Your task to perform on an android device: star an email in the gmail app Image 0: 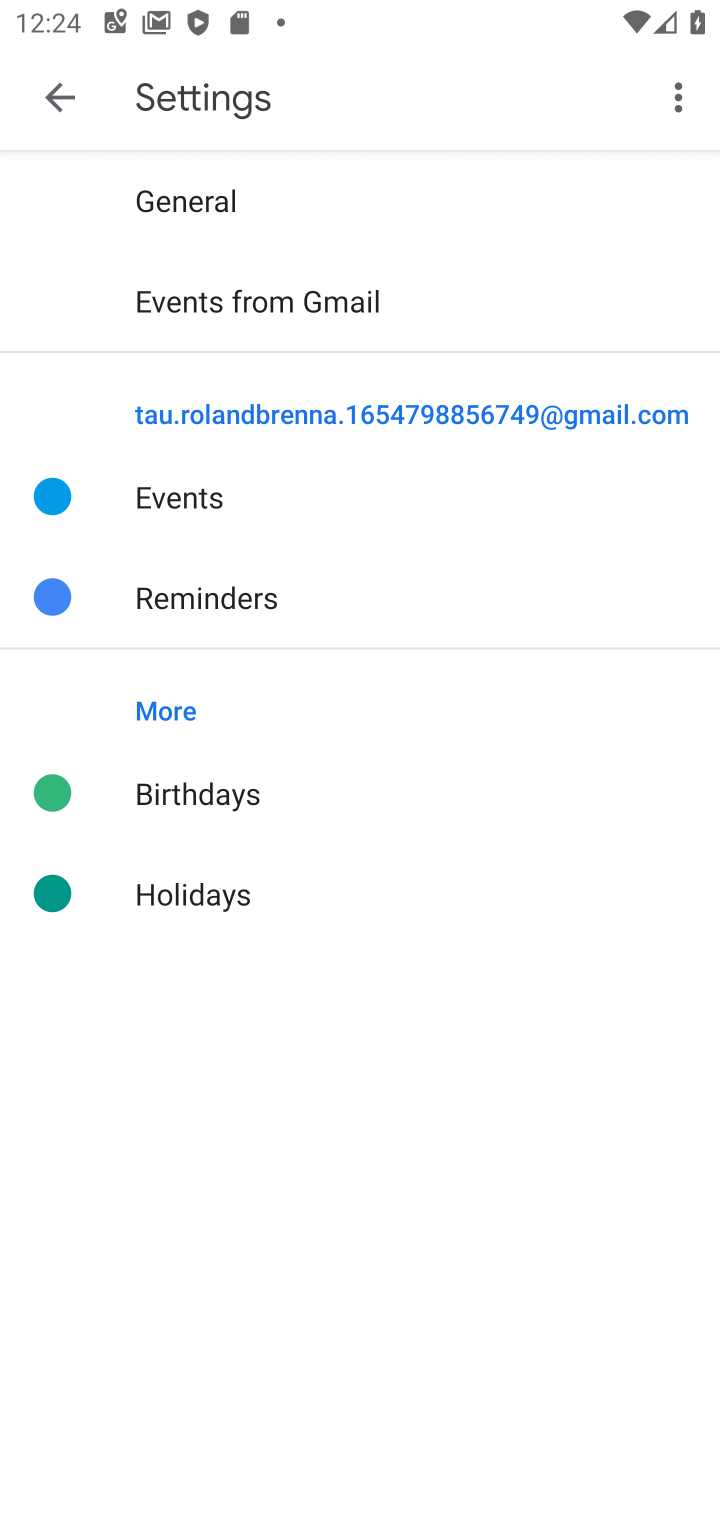
Step 0: press home button
Your task to perform on an android device: star an email in the gmail app Image 1: 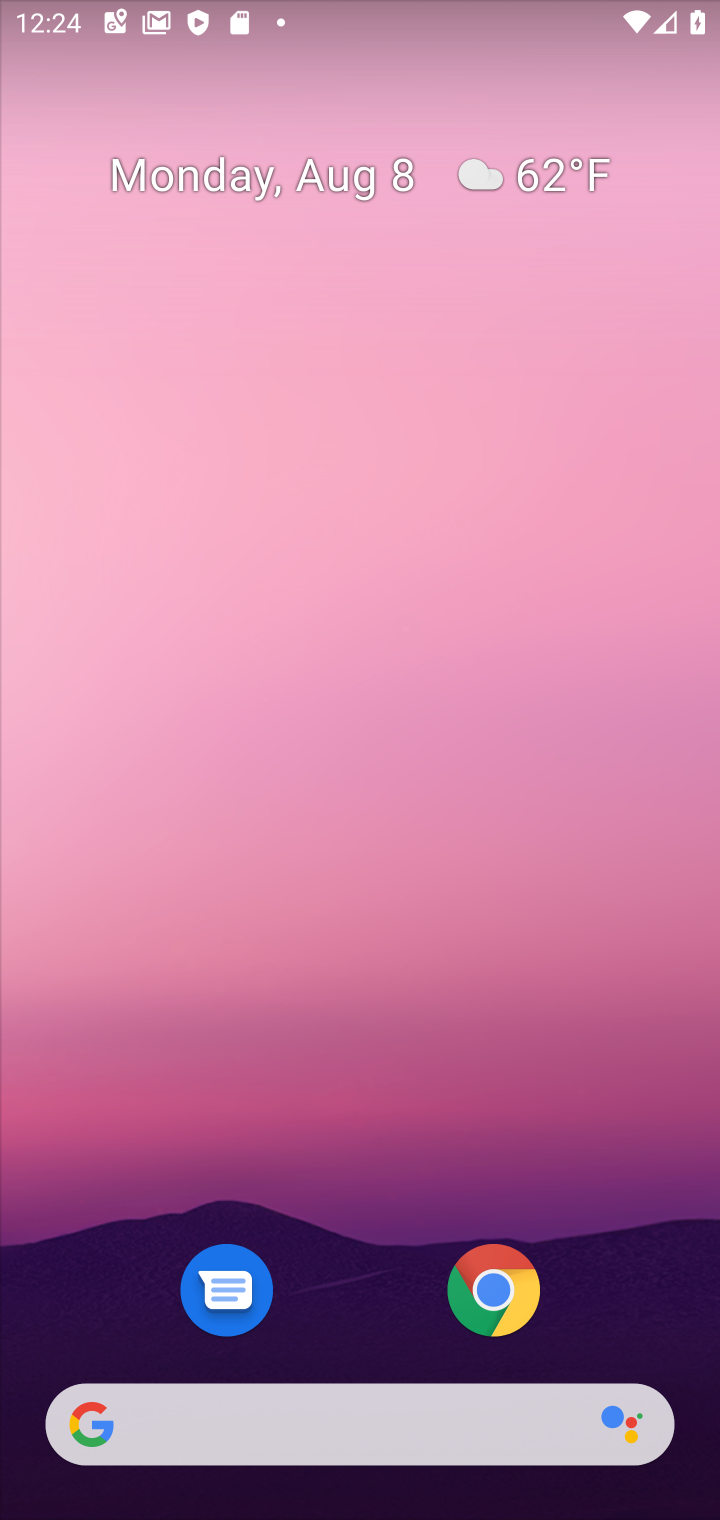
Step 1: drag from (317, 97) to (348, 10)
Your task to perform on an android device: star an email in the gmail app Image 2: 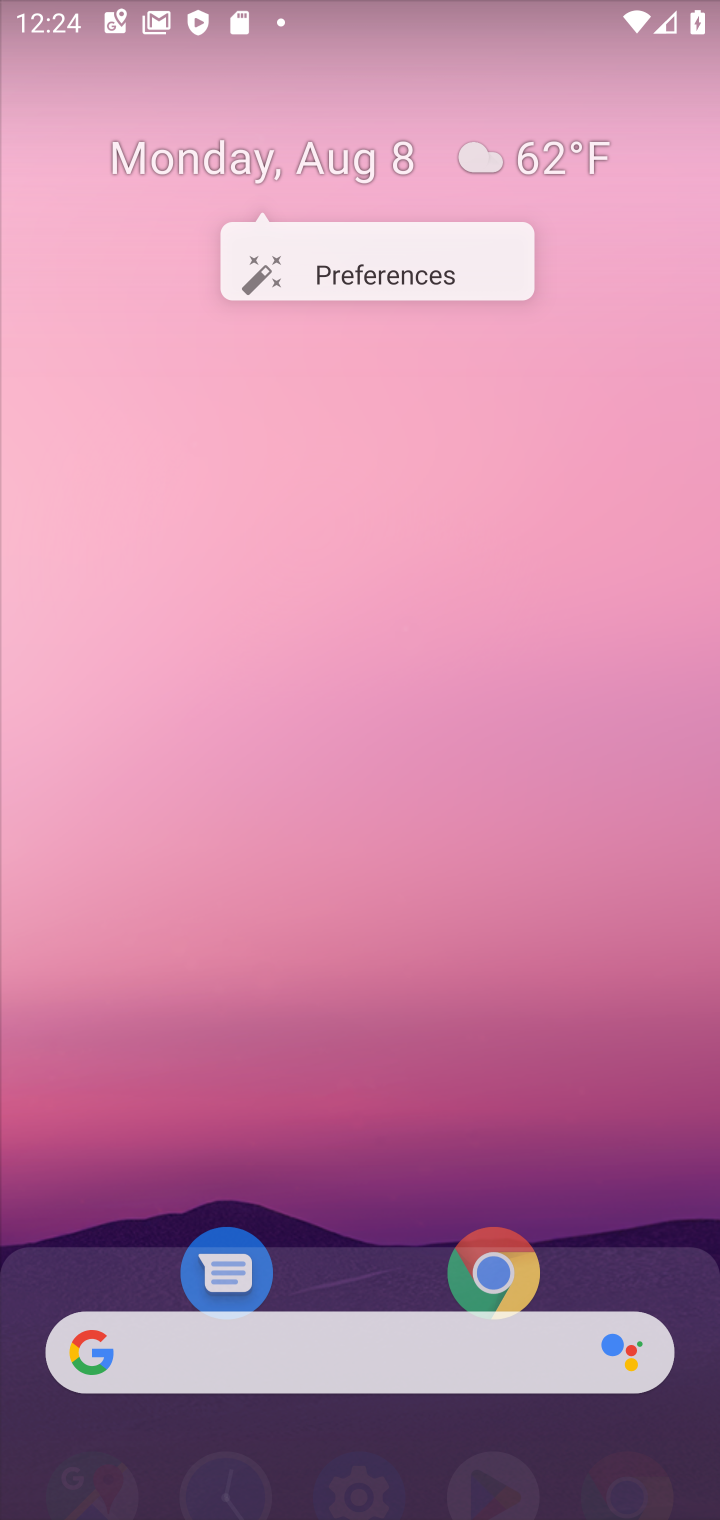
Step 2: click (248, 869)
Your task to perform on an android device: star an email in the gmail app Image 3: 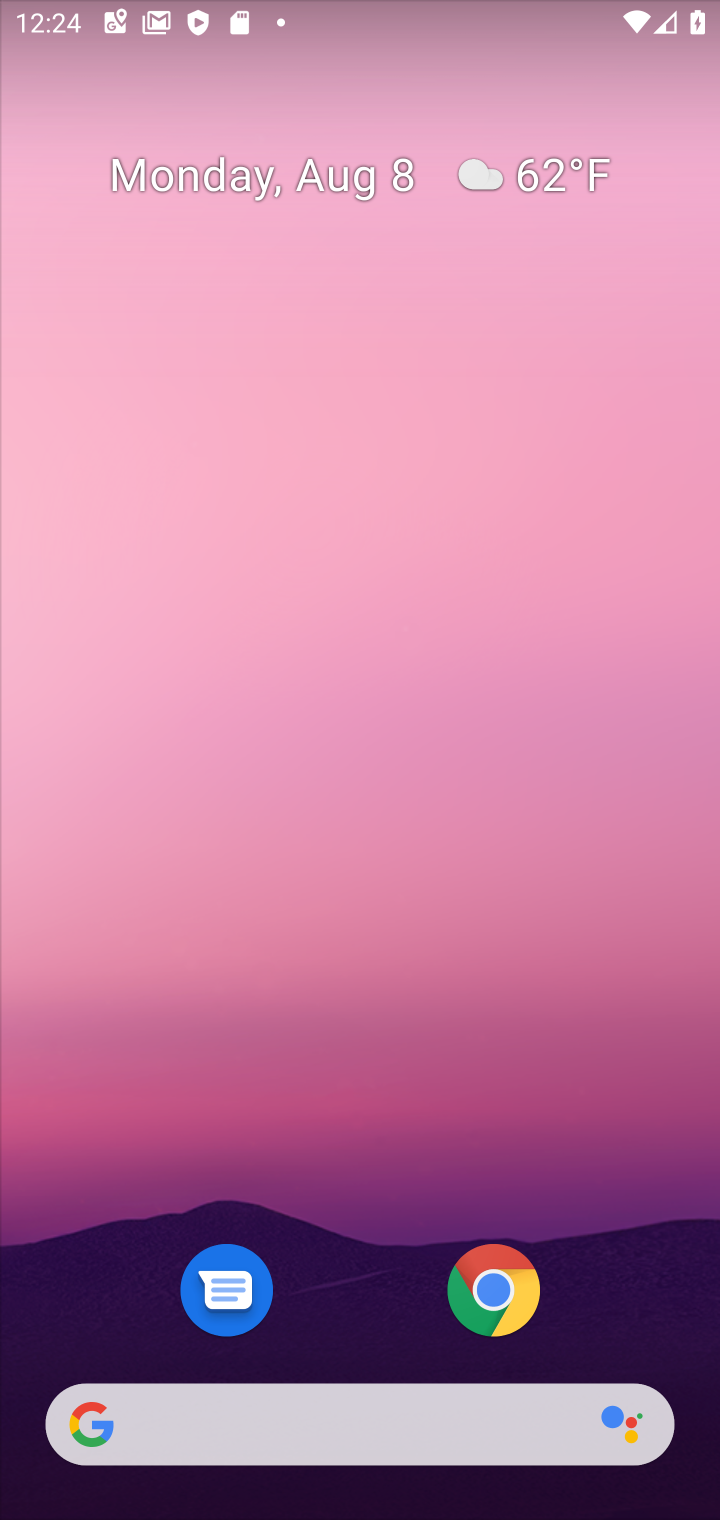
Step 3: drag from (354, 1316) to (355, 303)
Your task to perform on an android device: star an email in the gmail app Image 4: 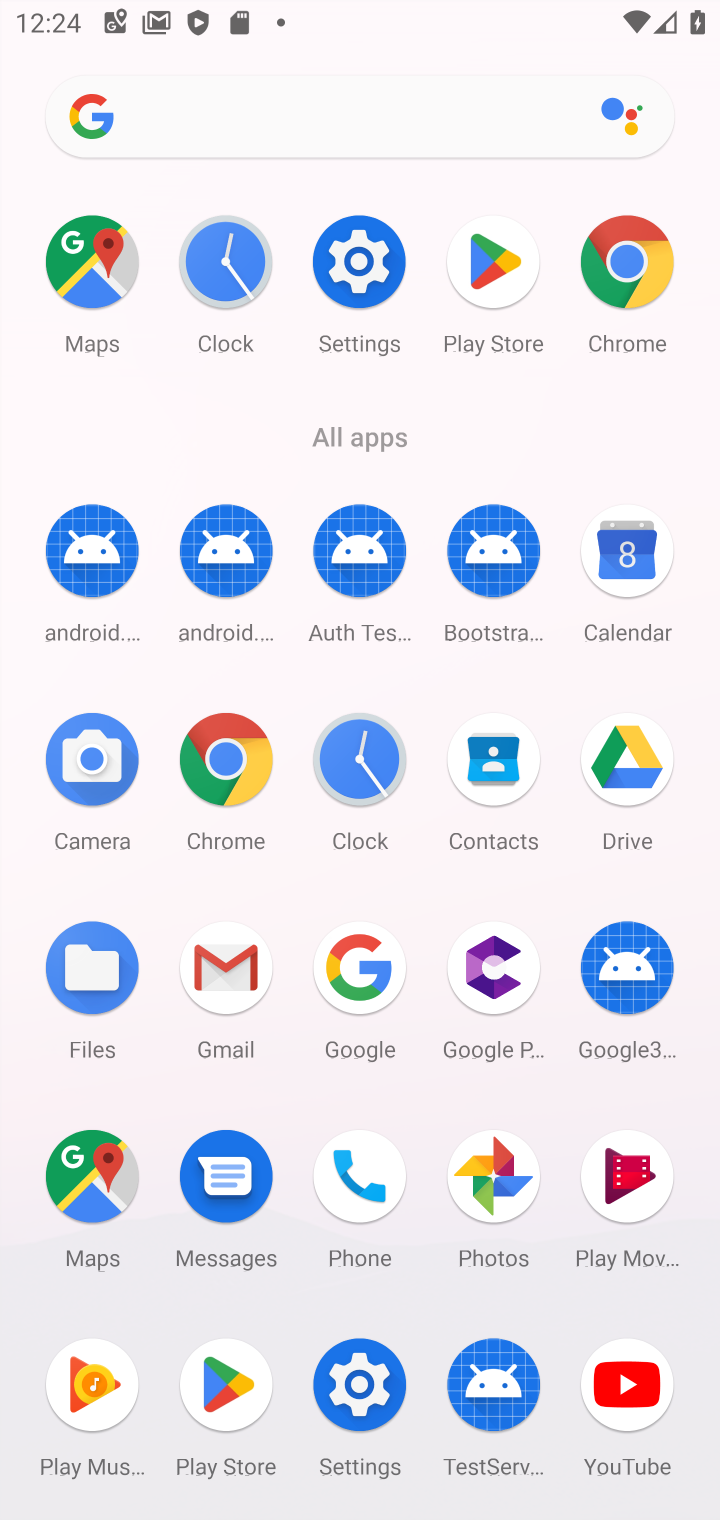
Step 4: click (224, 959)
Your task to perform on an android device: star an email in the gmail app Image 5: 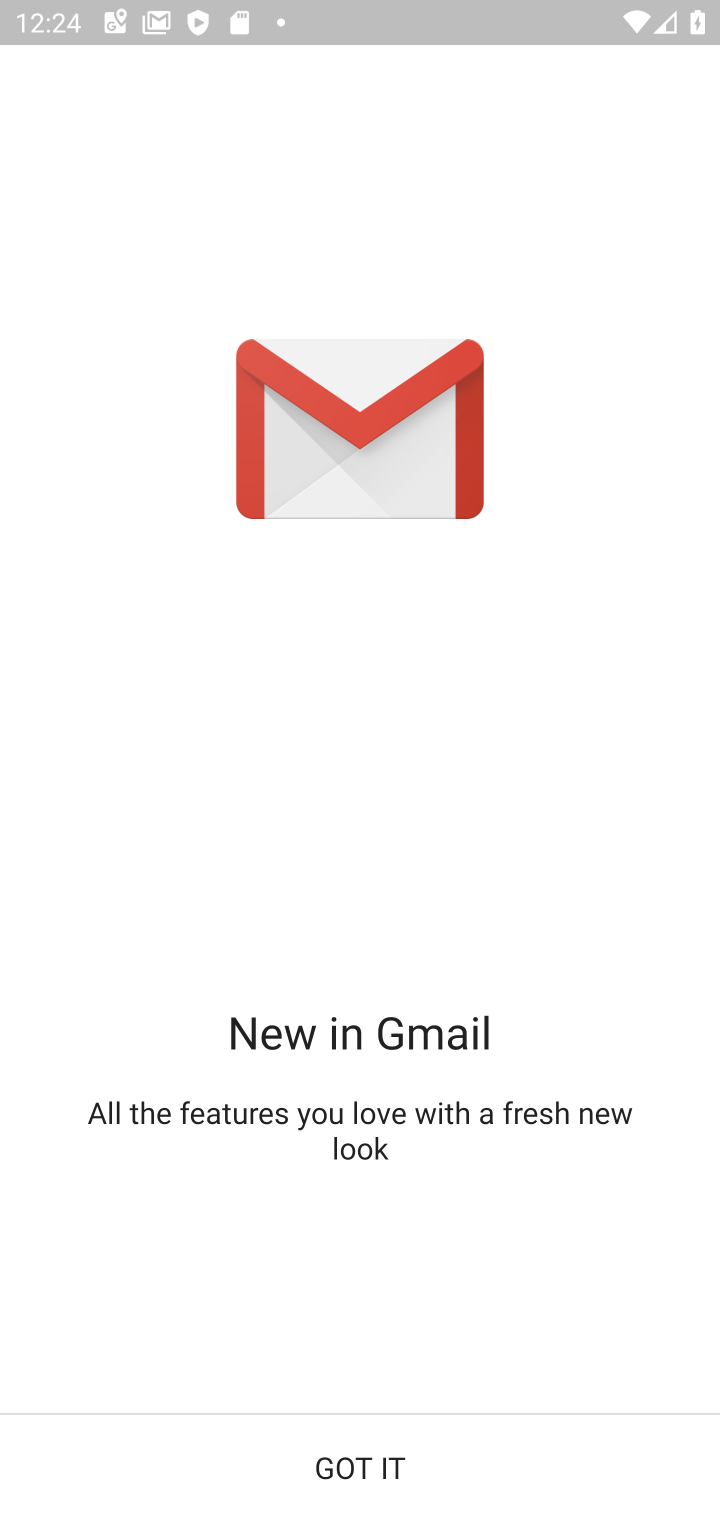
Step 5: click (329, 1469)
Your task to perform on an android device: star an email in the gmail app Image 6: 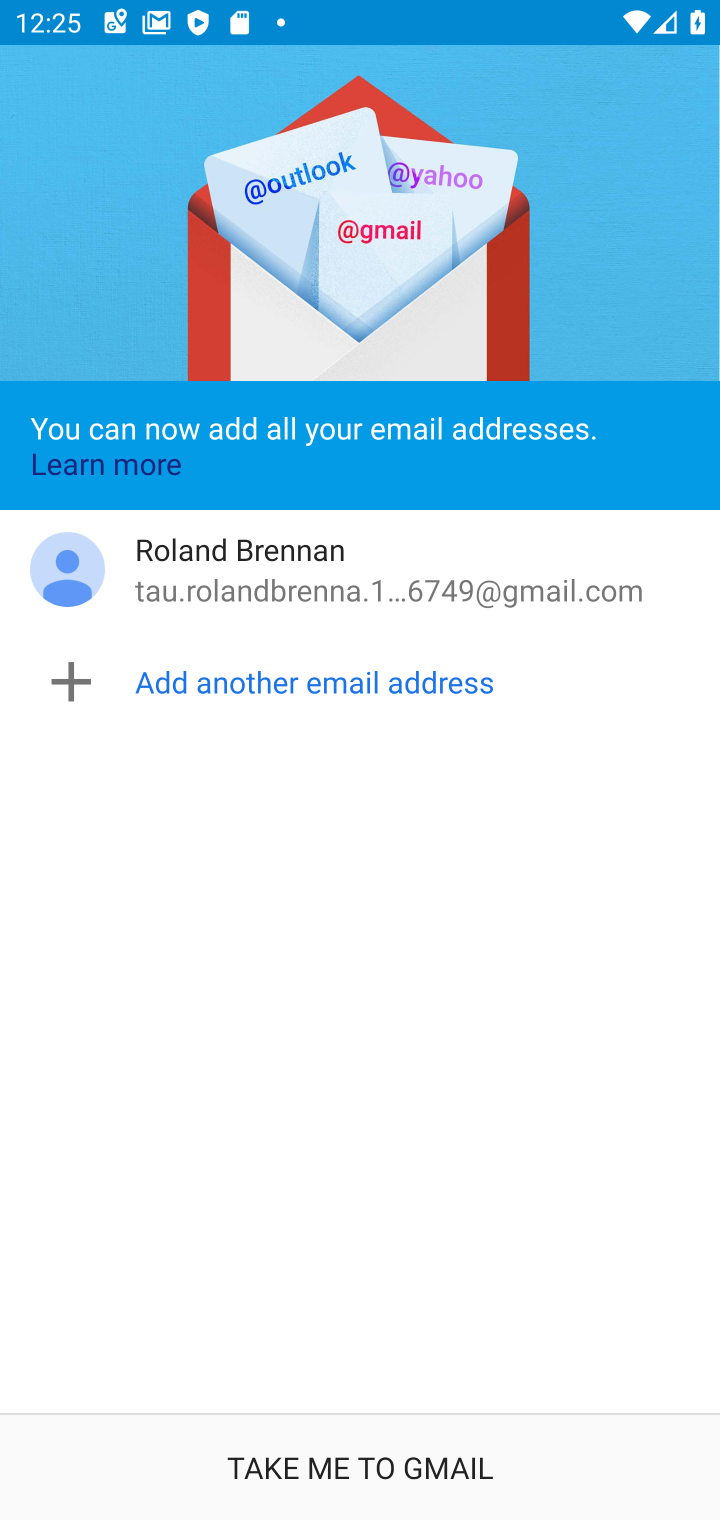
Step 6: click (353, 1449)
Your task to perform on an android device: star an email in the gmail app Image 7: 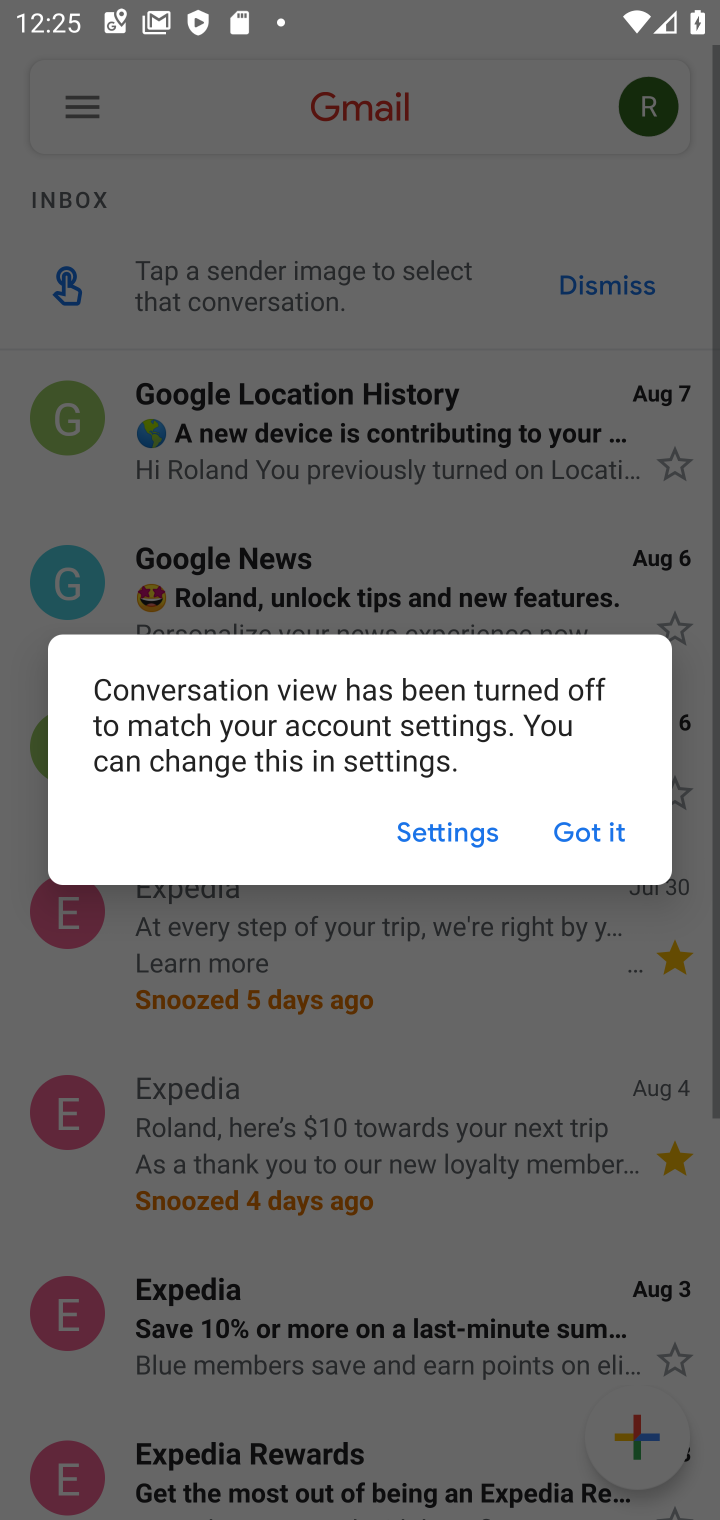
Step 7: click (599, 827)
Your task to perform on an android device: star an email in the gmail app Image 8: 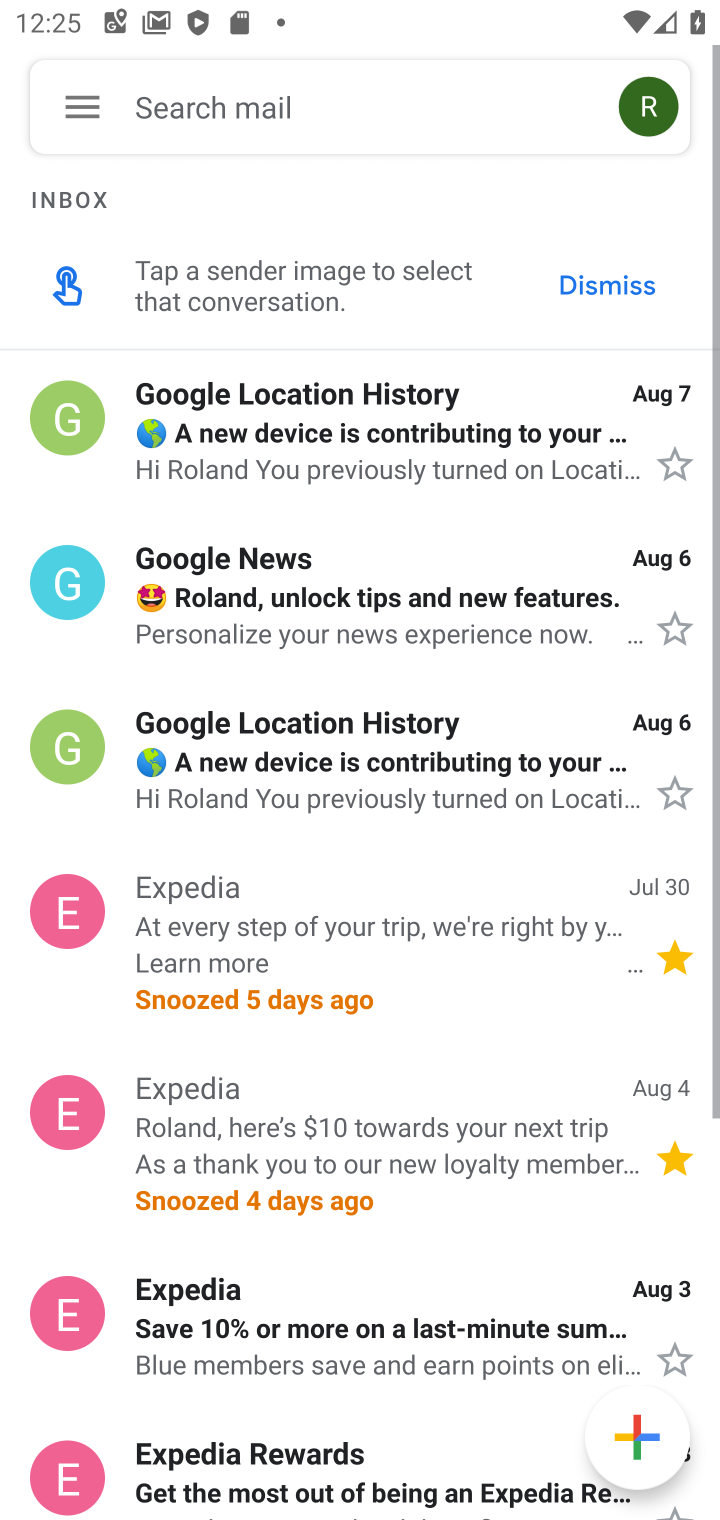
Step 8: click (674, 470)
Your task to perform on an android device: star an email in the gmail app Image 9: 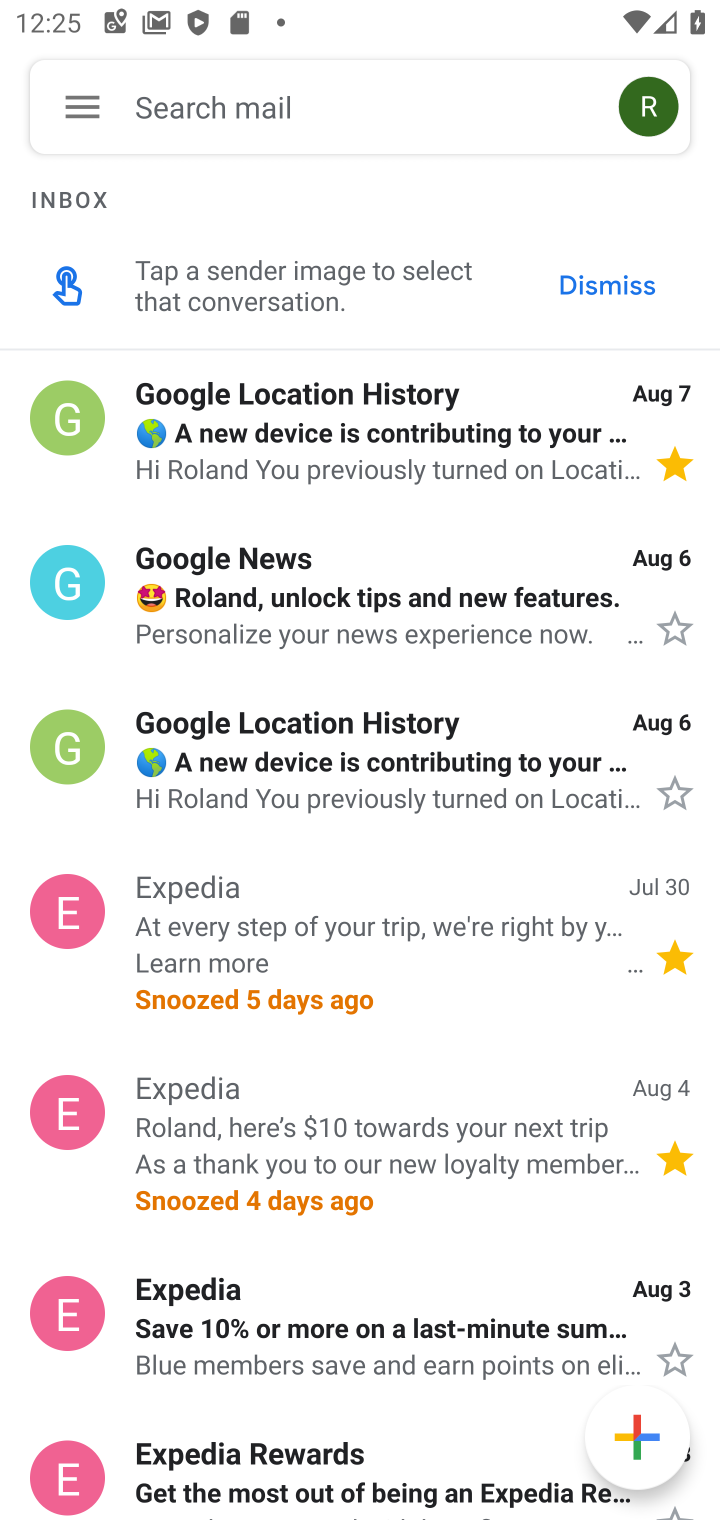
Step 9: task complete